Your task to perform on an android device: Go to privacy settings Image 0: 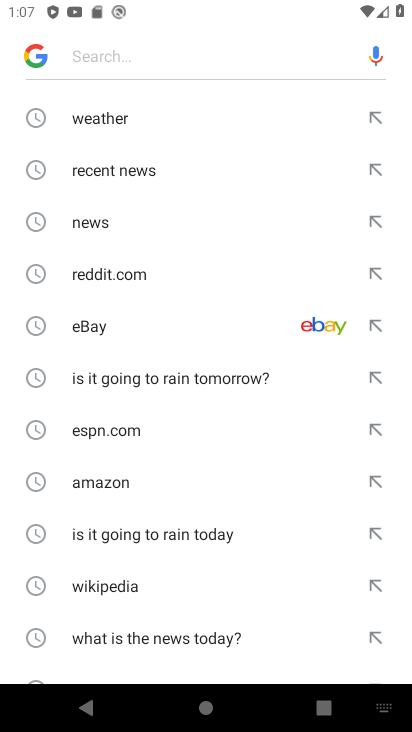
Step 0: press home button
Your task to perform on an android device: Go to privacy settings Image 1: 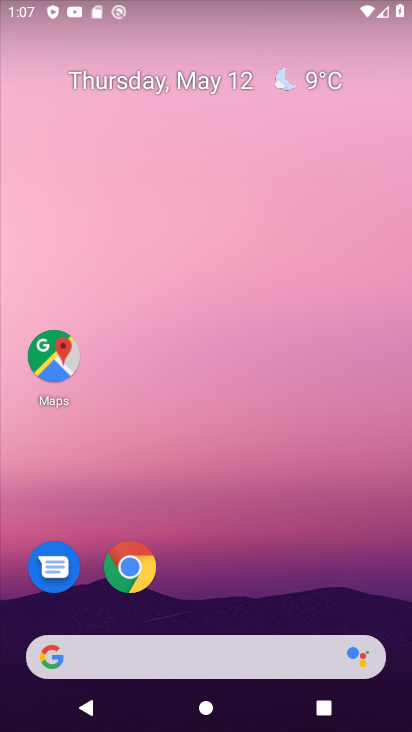
Step 1: drag from (253, 251) to (261, 99)
Your task to perform on an android device: Go to privacy settings Image 2: 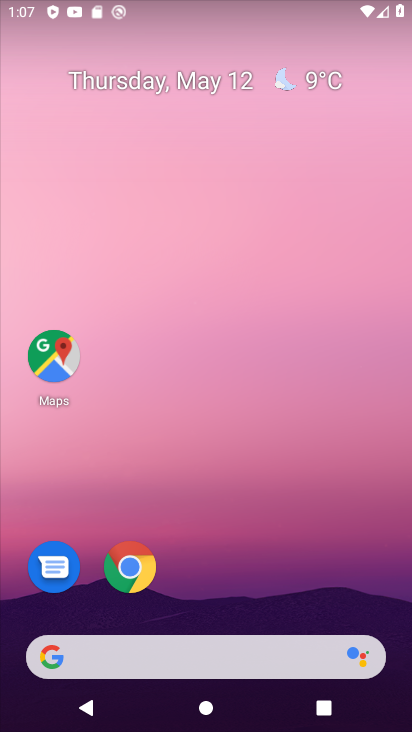
Step 2: drag from (225, 590) to (270, 7)
Your task to perform on an android device: Go to privacy settings Image 3: 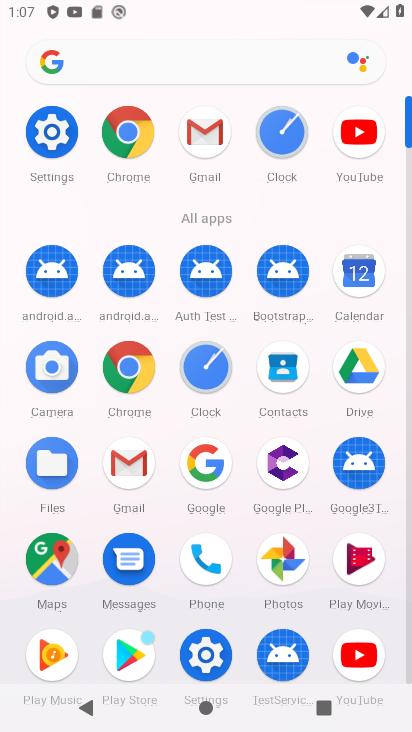
Step 3: click (52, 129)
Your task to perform on an android device: Go to privacy settings Image 4: 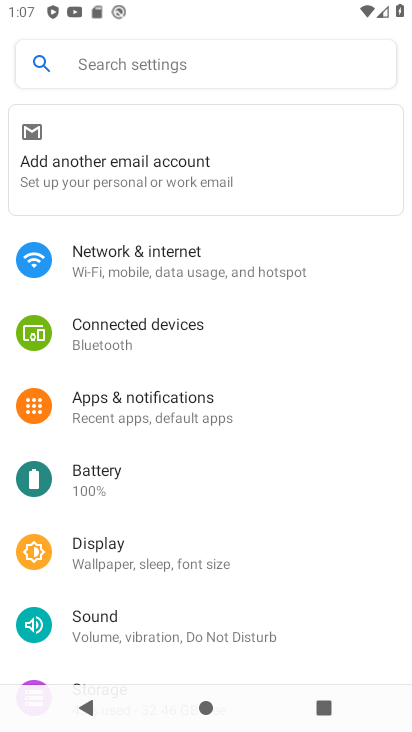
Step 4: drag from (192, 604) to (190, 181)
Your task to perform on an android device: Go to privacy settings Image 5: 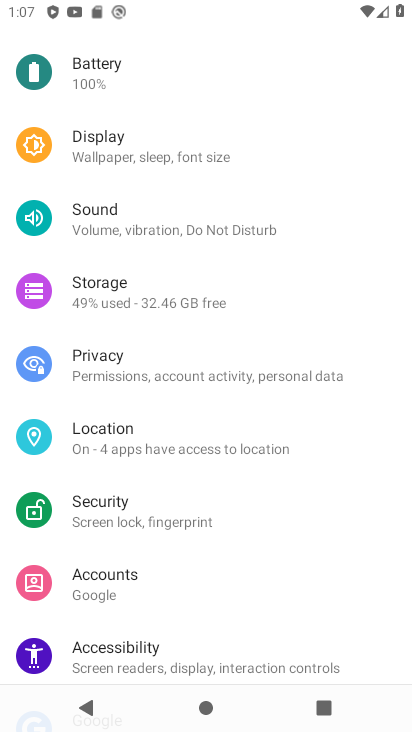
Step 5: click (128, 358)
Your task to perform on an android device: Go to privacy settings Image 6: 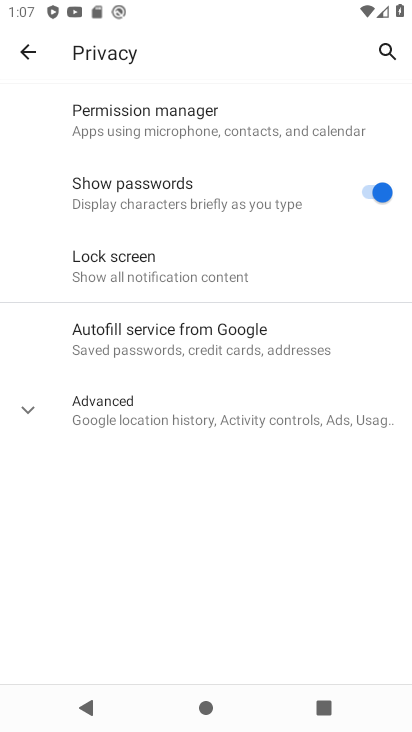
Step 6: click (29, 405)
Your task to perform on an android device: Go to privacy settings Image 7: 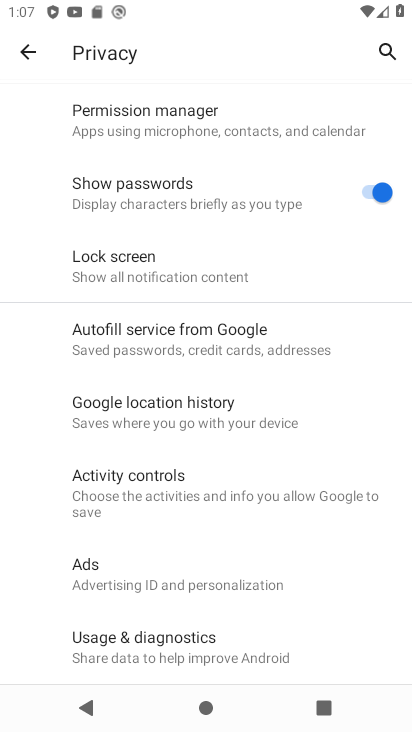
Step 7: task complete